Your task to perform on an android device: check data usage Image 0: 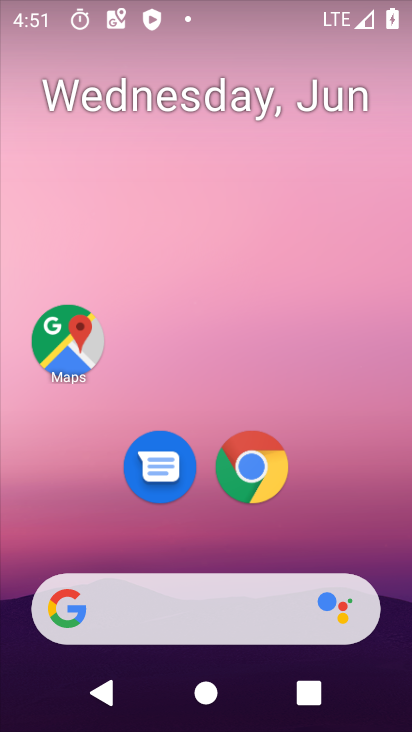
Step 0: drag from (345, 481) to (156, 37)
Your task to perform on an android device: check data usage Image 1: 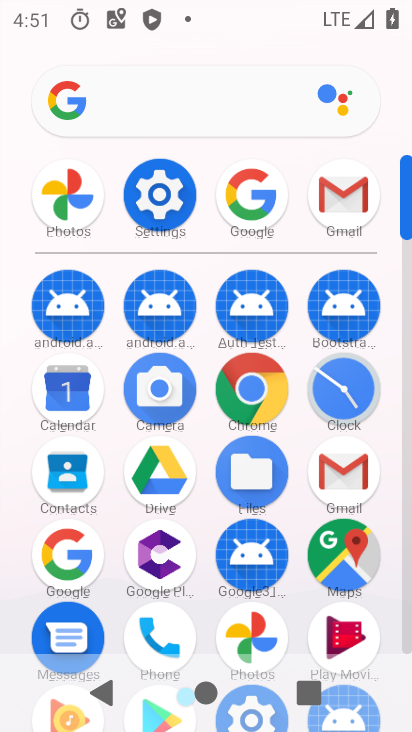
Step 1: click (149, 188)
Your task to perform on an android device: check data usage Image 2: 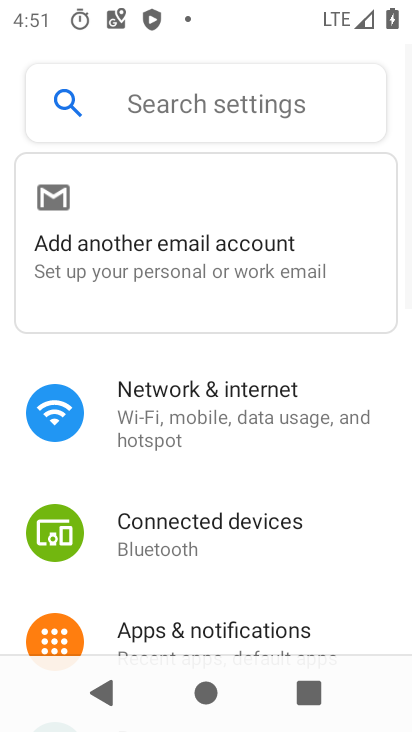
Step 2: click (203, 393)
Your task to perform on an android device: check data usage Image 3: 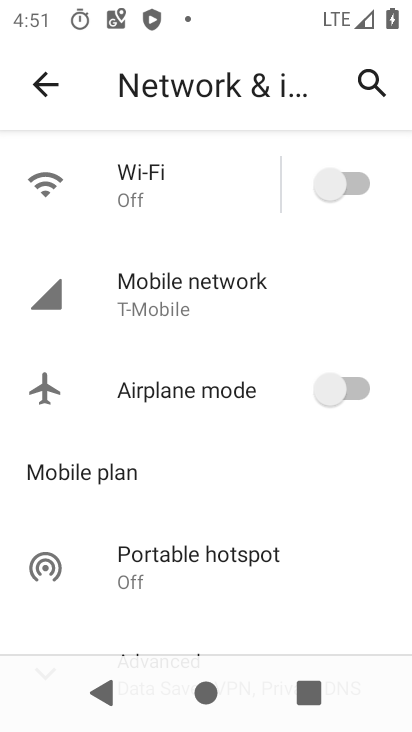
Step 3: click (179, 284)
Your task to perform on an android device: check data usage Image 4: 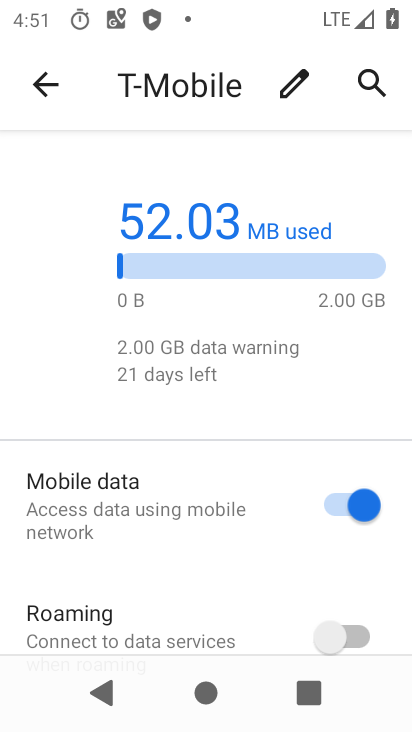
Step 4: task complete